Your task to perform on an android device: delete a single message in the gmail app Image 0: 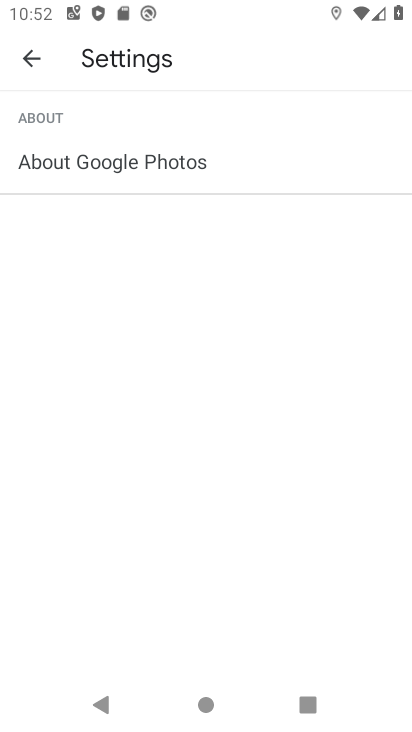
Step 0: click (125, 551)
Your task to perform on an android device: delete a single message in the gmail app Image 1: 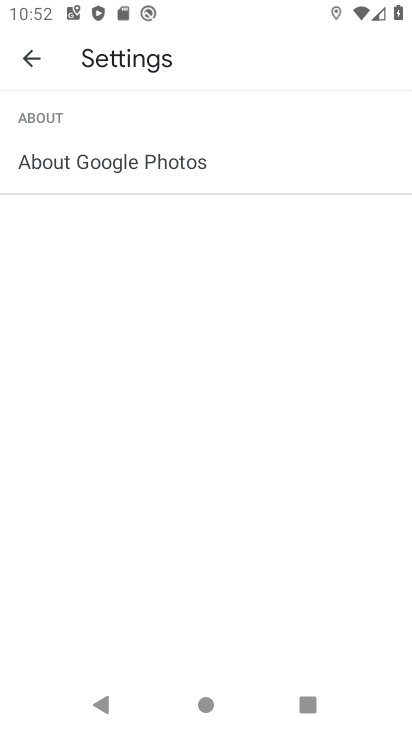
Step 1: press home button
Your task to perform on an android device: delete a single message in the gmail app Image 2: 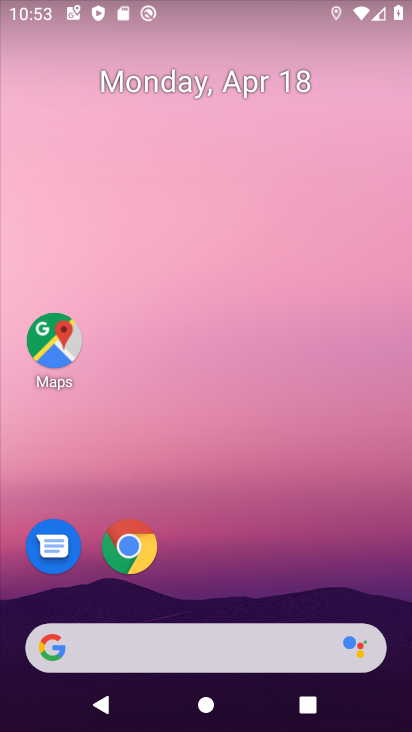
Step 2: drag from (344, 583) to (280, 73)
Your task to perform on an android device: delete a single message in the gmail app Image 3: 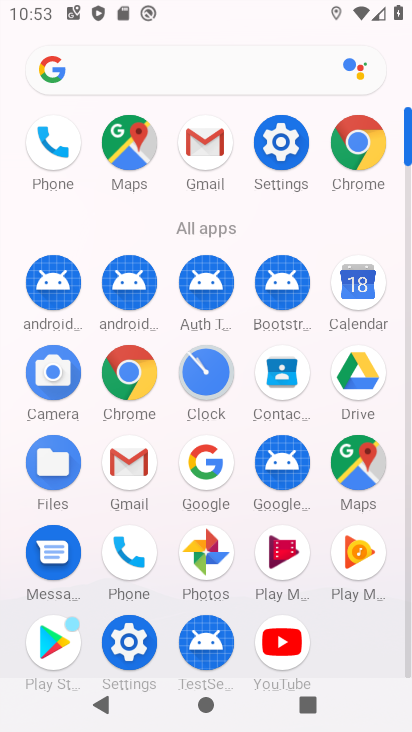
Step 3: click (184, 150)
Your task to perform on an android device: delete a single message in the gmail app Image 4: 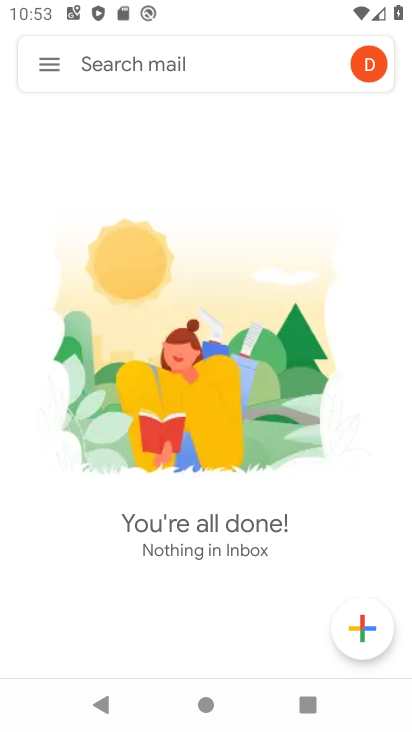
Step 4: click (50, 71)
Your task to perform on an android device: delete a single message in the gmail app Image 5: 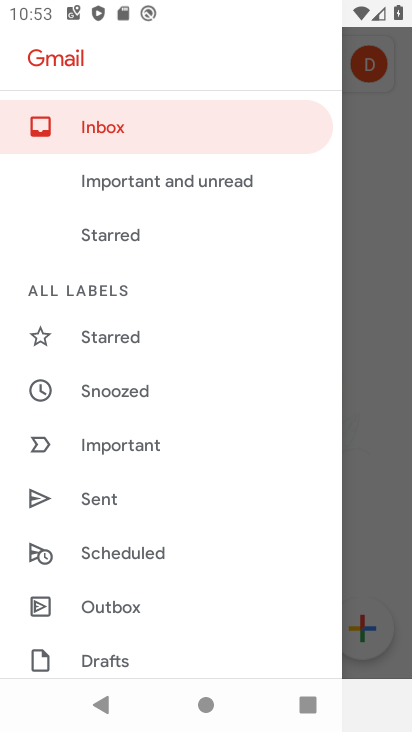
Step 5: drag from (183, 578) to (185, 169)
Your task to perform on an android device: delete a single message in the gmail app Image 6: 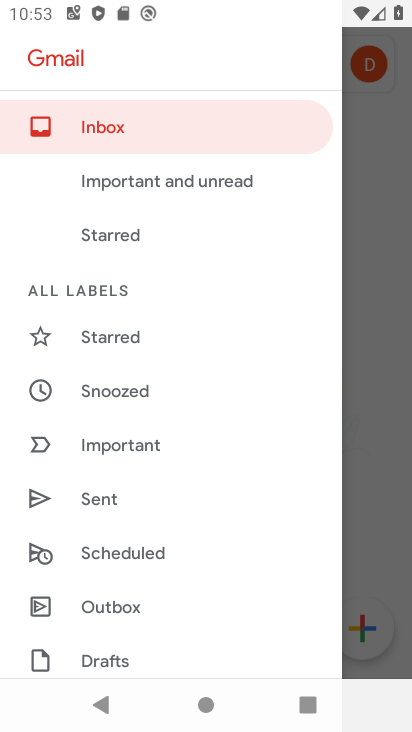
Step 6: drag from (183, 597) to (217, 310)
Your task to perform on an android device: delete a single message in the gmail app Image 7: 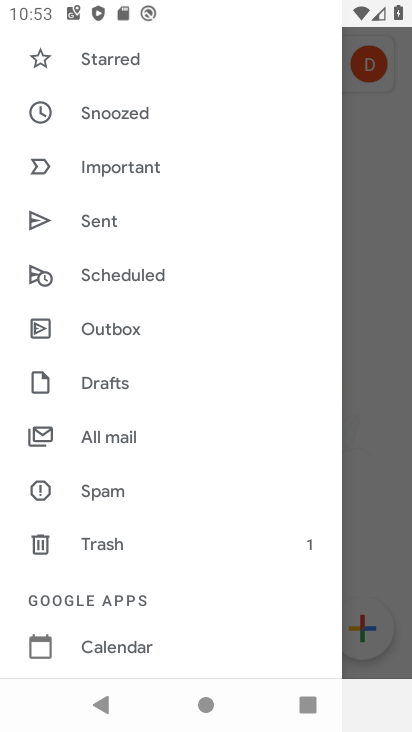
Step 7: click (196, 443)
Your task to perform on an android device: delete a single message in the gmail app Image 8: 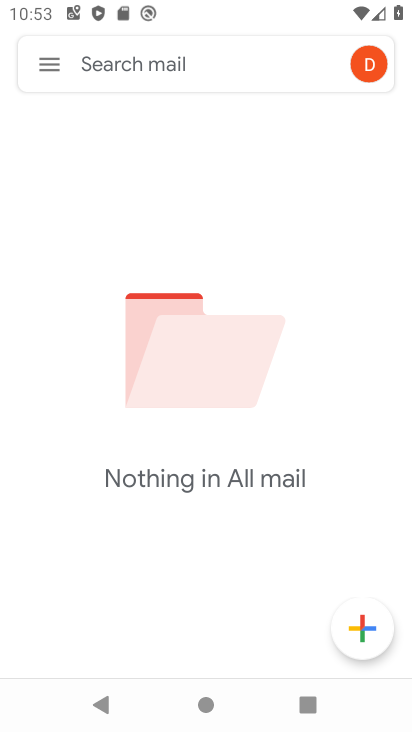
Step 8: task complete